Your task to perform on an android device: turn on sleep mode Image 0: 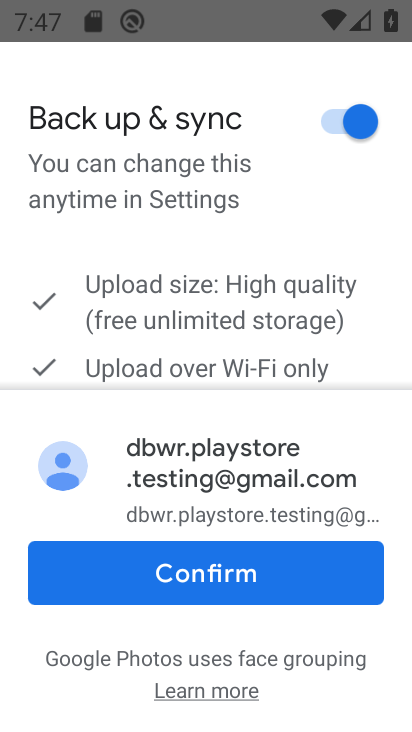
Step 0: press home button
Your task to perform on an android device: turn on sleep mode Image 1: 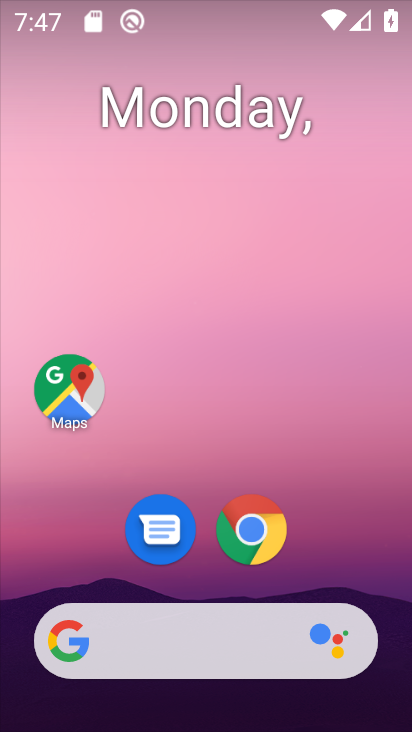
Step 1: drag from (210, 609) to (282, 161)
Your task to perform on an android device: turn on sleep mode Image 2: 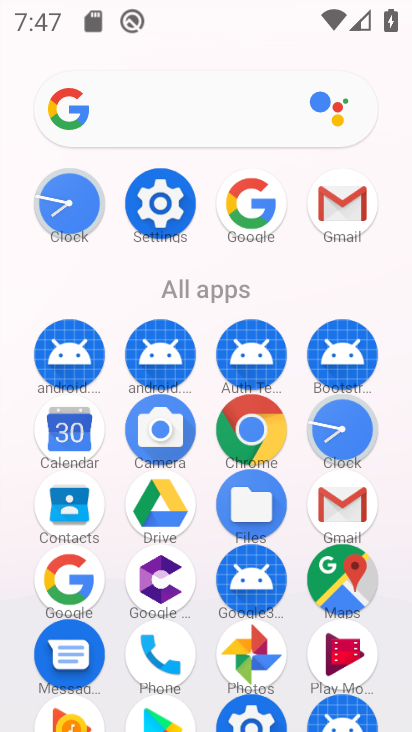
Step 2: click (149, 210)
Your task to perform on an android device: turn on sleep mode Image 3: 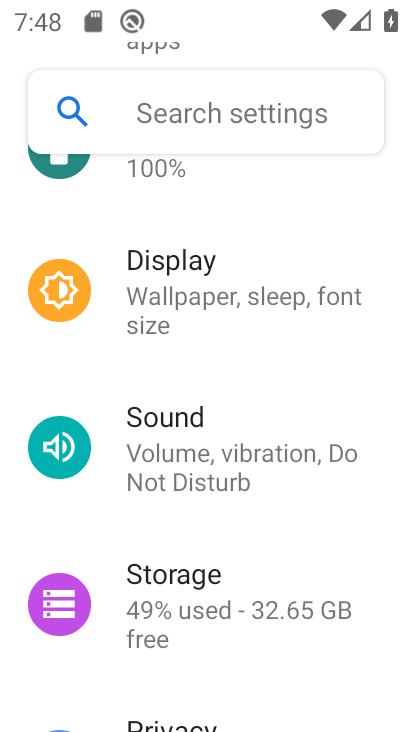
Step 3: click (220, 281)
Your task to perform on an android device: turn on sleep mode Image 4: 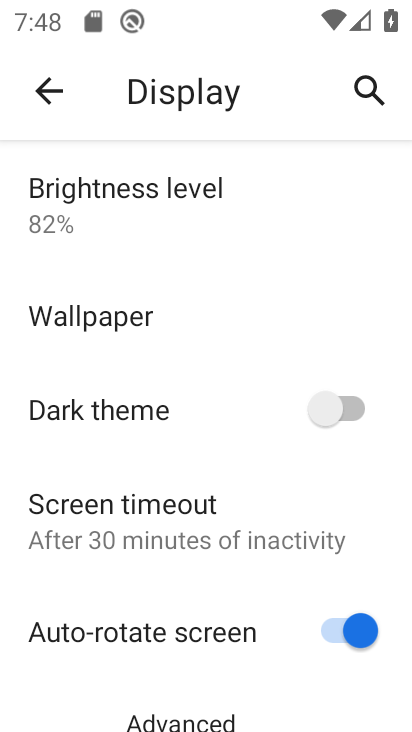
Step 4: click (77, 541)
Your task to perform on an android device: turn on sleep mode Image 5: 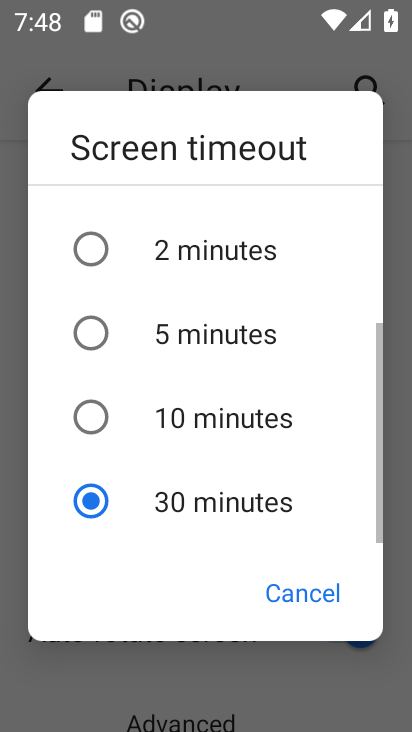
Step 5: click (164, 252)
Your task to perform on an android device: turn on sleep mode Image 6: 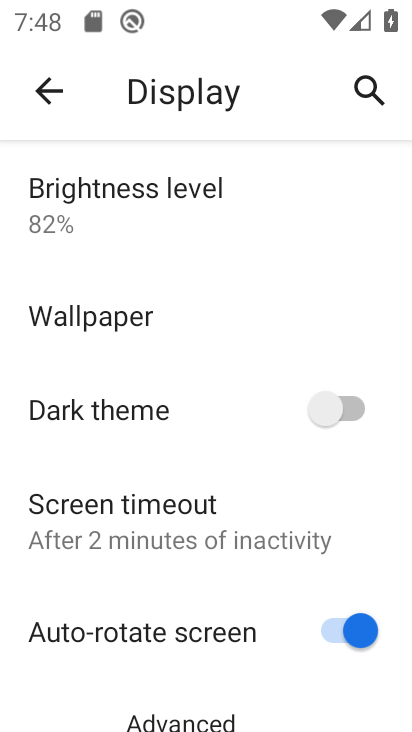
Step 6: task complete